Your task to perform on an android device: What's the weather going to be tomorrow? Image 0: 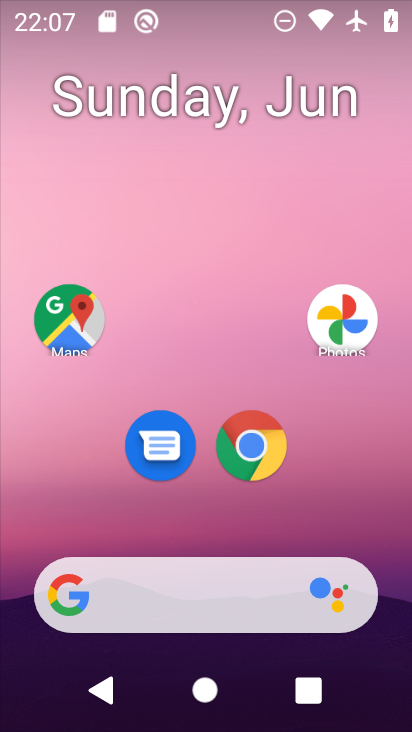
Step 0: press home button
Your task to perform on an android device: What's the weather going to be tomorrow? Image 1: 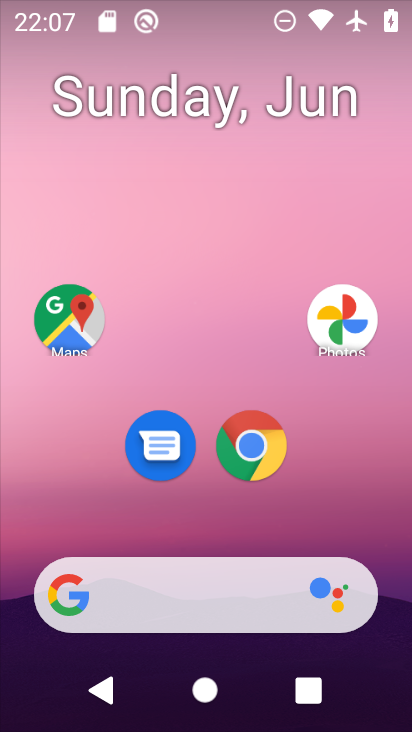
Step 1: click (59, 623)
Your task to perform on an android device: What's the weather going to be tomorrow? Image 2: 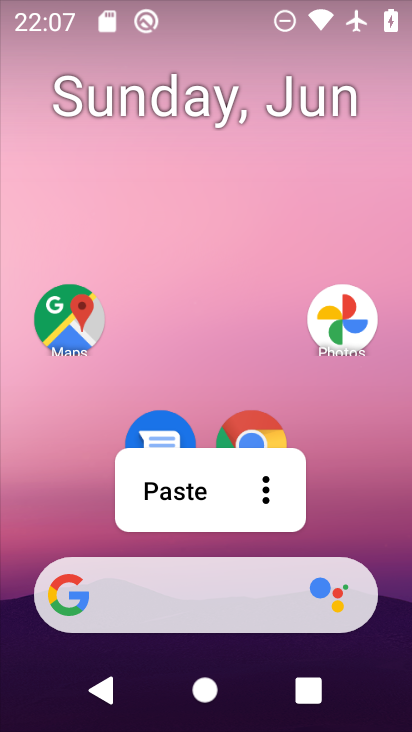
Step 2: click (72, 603)
Your task to perform on an android device: What's the weather going to be tomorrow? Image 3: 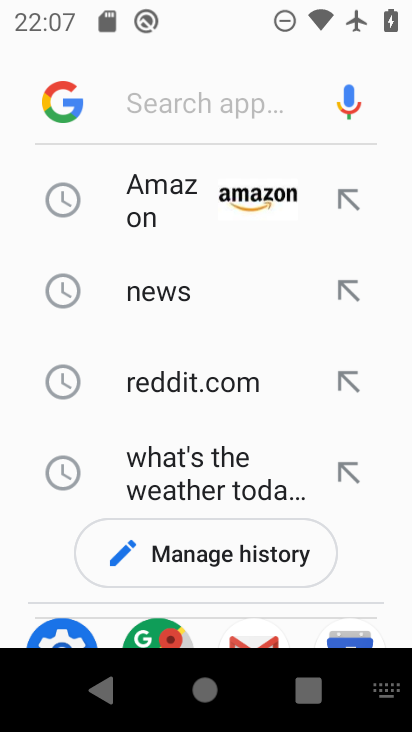
Step 3: type "weather going to be tomorrow?"
Your task to perform on an android device: What's the weather going to be tomorrow? Image 4: 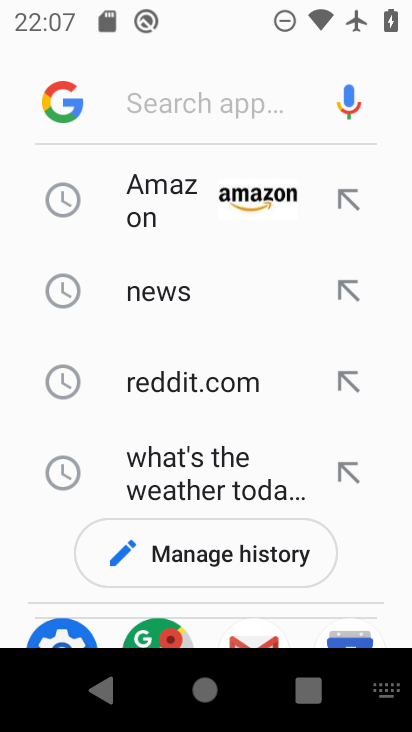
Step 4: click (186, 122)
Your task to perform on an android device: What's the weather going to be tomorrow? Image 5: 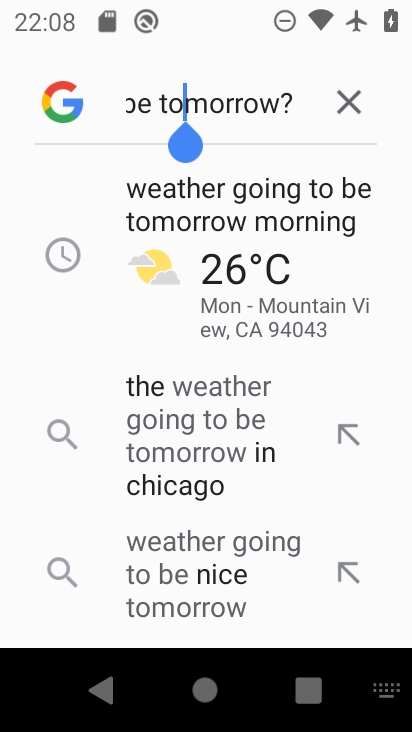
Step 5: click (264, 191)
Your task to perform on an android device: What's the weather going to be tomorrow? Image 6: 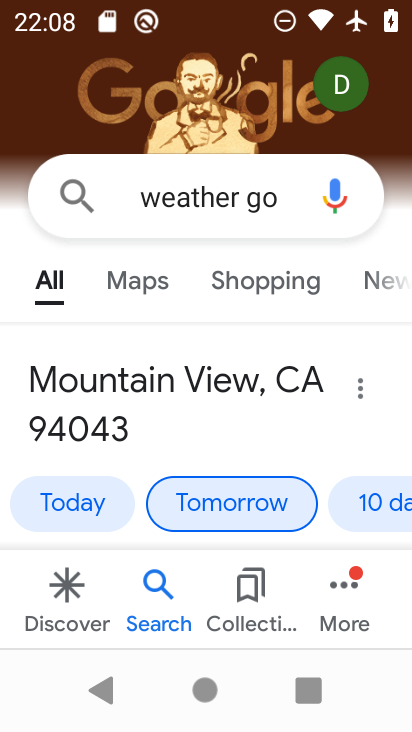
Step 6: task complete